Your task to perform on an android device: Open display settings Image 0: 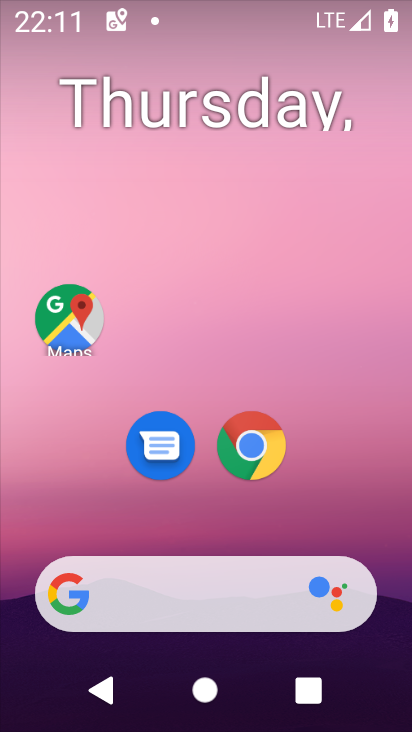
Step 0: drag from (196, 535) to (240, 186)
Your task to perform on an android device: Open display settings Image 1: 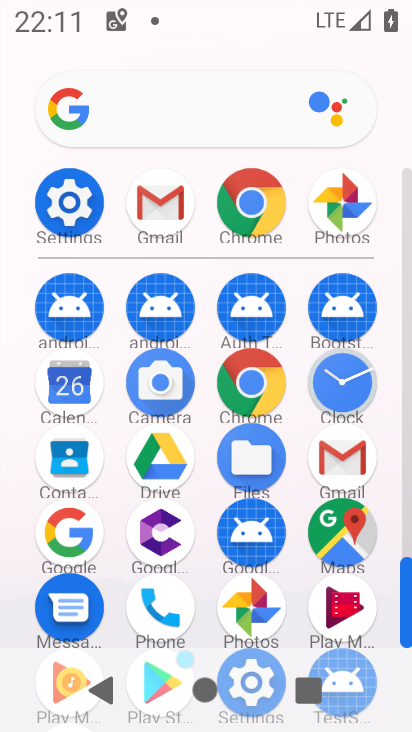
Step 1: drag from (197, 273) to (204, 95)
Your task to perform on an android device: Open display settings Image 2: 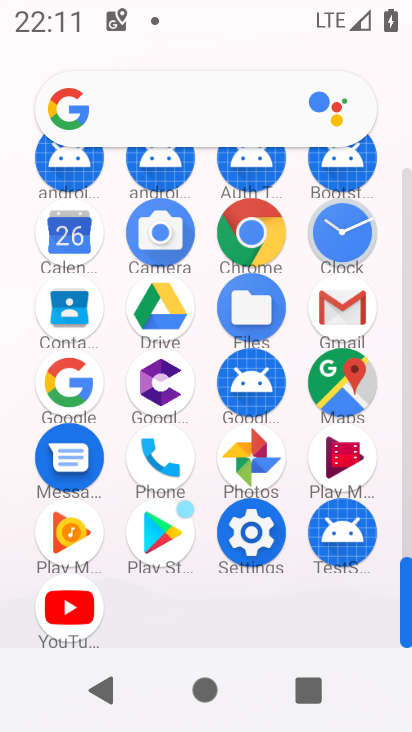
Step 2: click (249, 532)
Your task to perform on an android device: Open display settings Image 3: 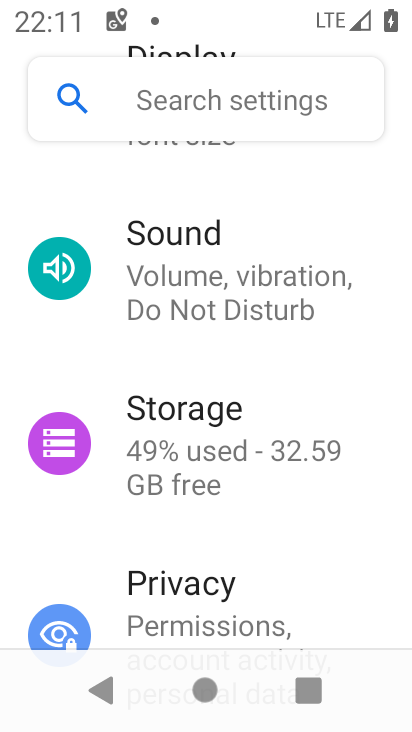
Step 3: drag from (223, 523) to (262, 234)
Your task to perform on an android device: Open display settings Image 4: 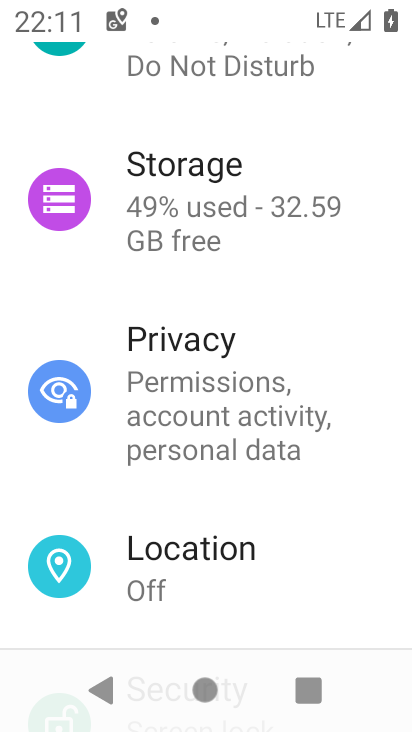
Step 4: drag from (256, 252) to (281, 505)
Your task to perform on an android device: Open display settings Image 5: 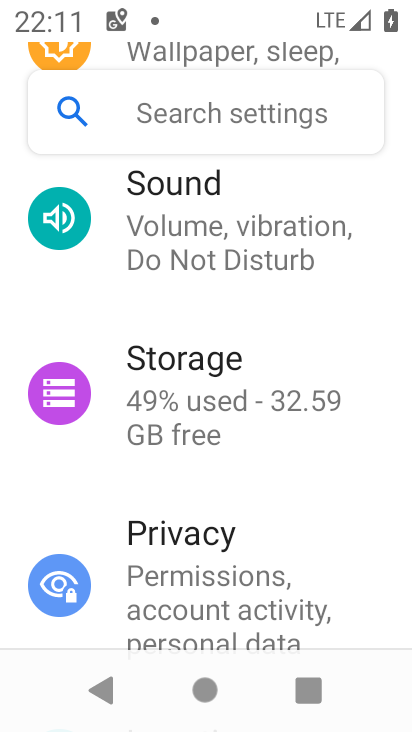
Step 5: drag from (249, 299) to (267, 533)
Your task to perform on an android device: Open display settings Image 6: 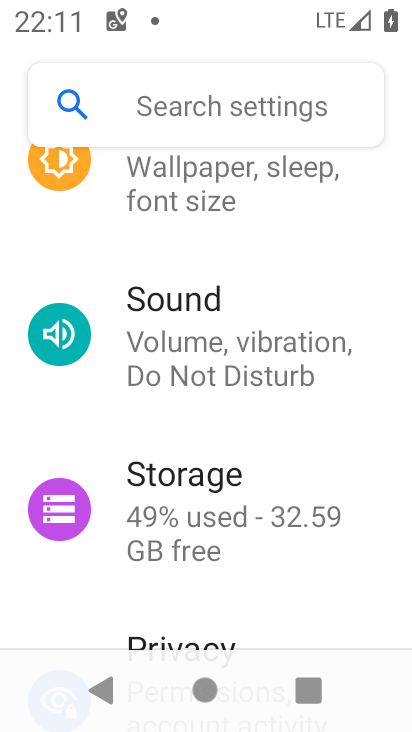
Step 6: drag from (259, 262) to (258, 477)
Your task to perform on an android device: Open display settings Image 7: 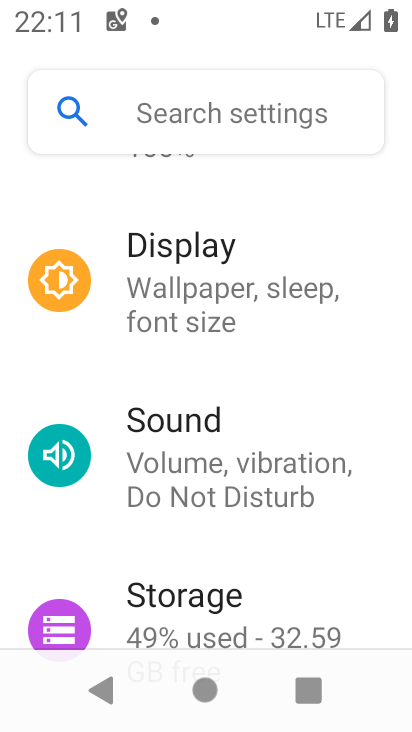
Step 7: click (210, 303)
Your task to perform on an android device: Open display settings Image 8: 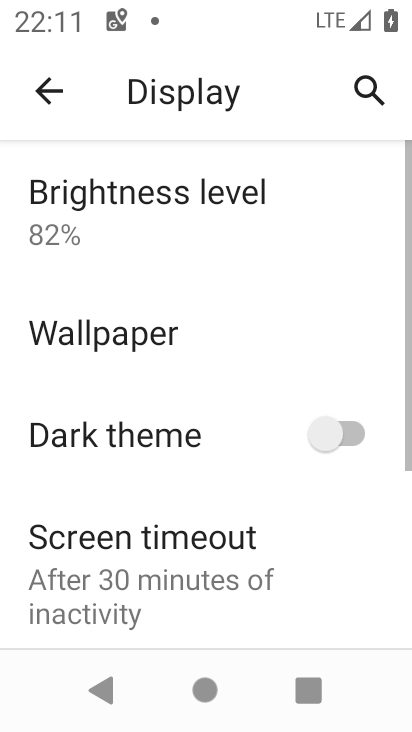
Step 8: task complete